Your task to perform on an android device: Set the phone to "Do not disturb". Image 0: 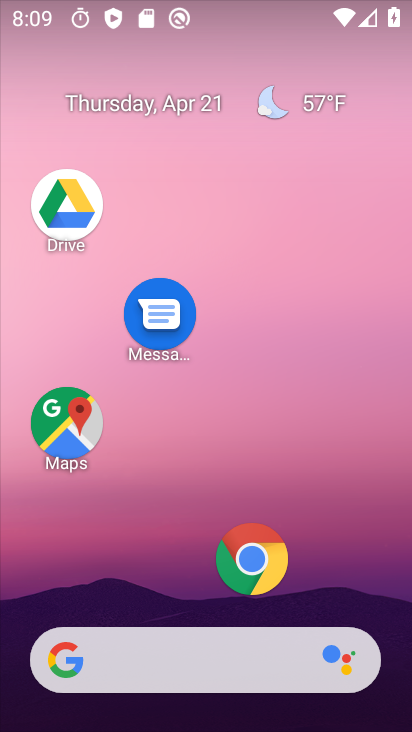
Step 0: drag from (122, 98) to (113, 24)
Your task to perform on an android device: Set the phone to "Do not disturb". Image 1: 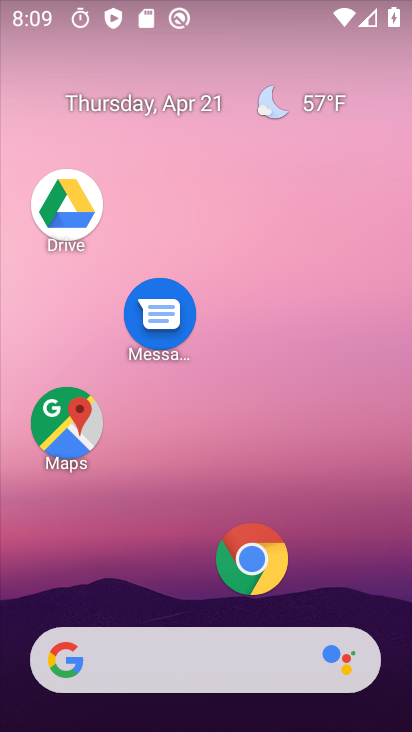
Step 1: drag from (336, 703) to (73, 0)
Your task to perform on an android device: Set the phone to "Do not disturb". Image 2: 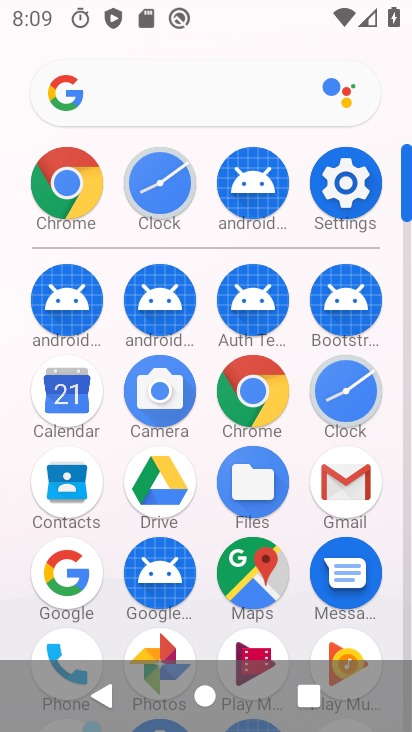
Step 2: drag from (319, 608) to (127, 41)
Your task to perform on an android device: Set the phone to "Do not disturb". Image 3: 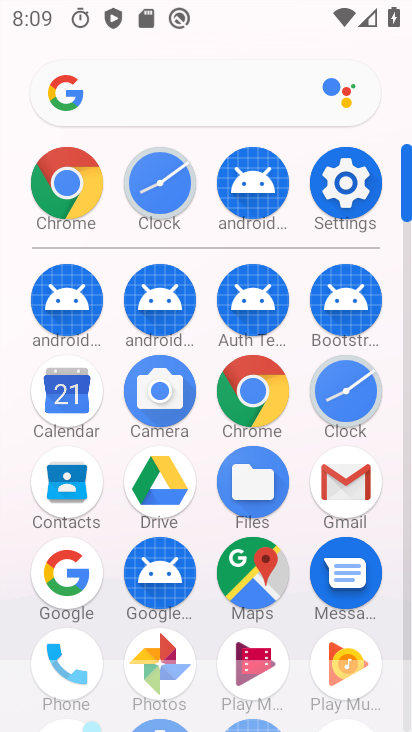
Step 3: click (349, 182)
Your task to perform on an android device: Set the phone to "Do not disturb". Image 4: 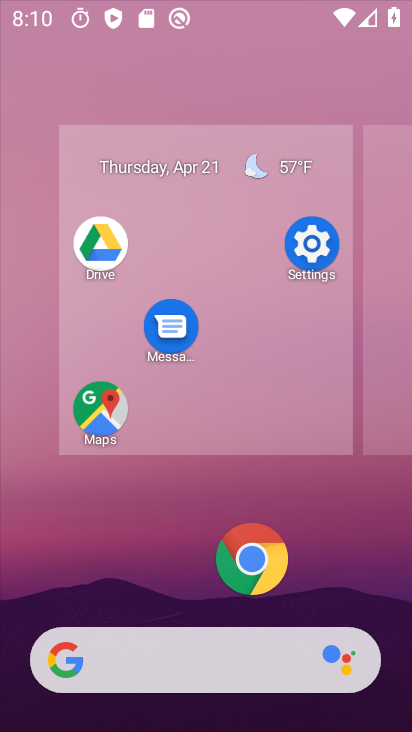
Step 4: click (356, 204)
Your task to perform on an android device: Set the phone to "Do not disturb". Image 5: 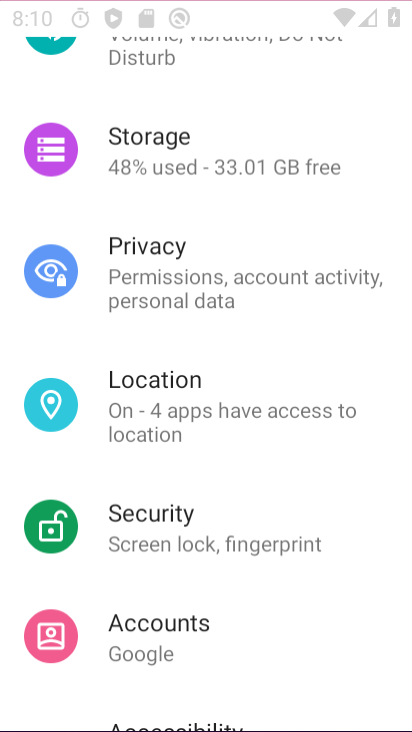
Step 5: drag from (336, 591) to (167, 34)
Your task to perform on an android device: Set the phone to "Do not disturb". Image 6: 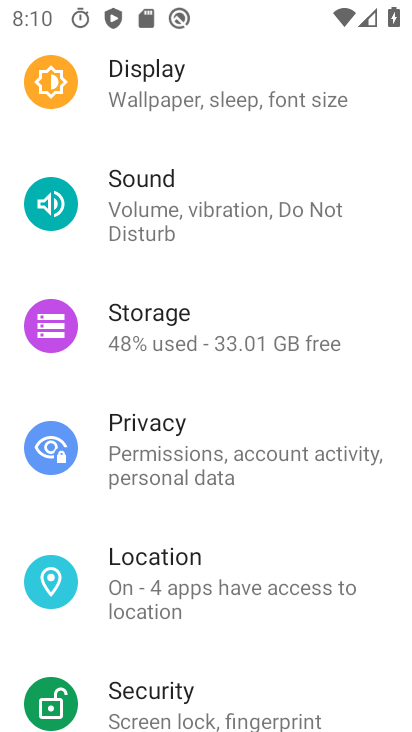
Step 6: click (165, 200)
Your task to perform on an android device: Set the phone to "Do not disturb". Image 7: 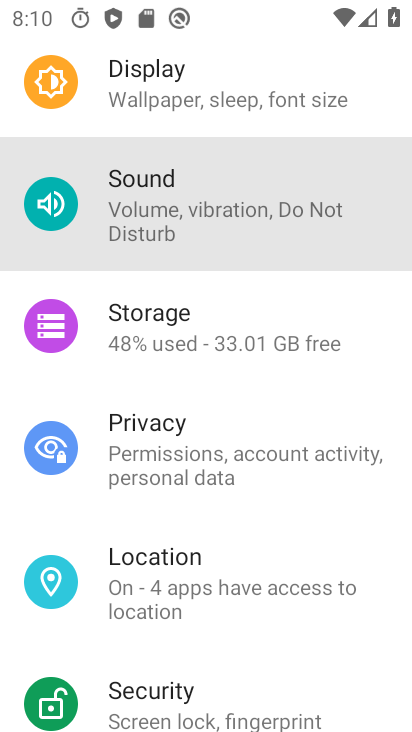
Step 7: click (177, 210)
Your task to perform on an android device: Set the phone to "Do not disturb". Image 8: 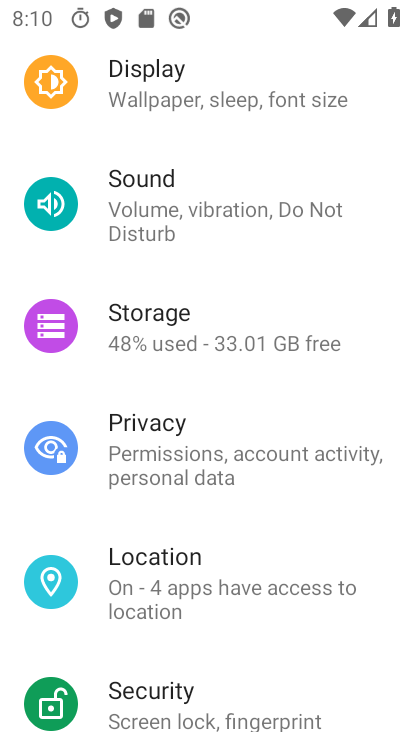
Step 8: click (177, 211)
Your task to perform on an android device: Set the phone to "Do not disturb". Image 9: 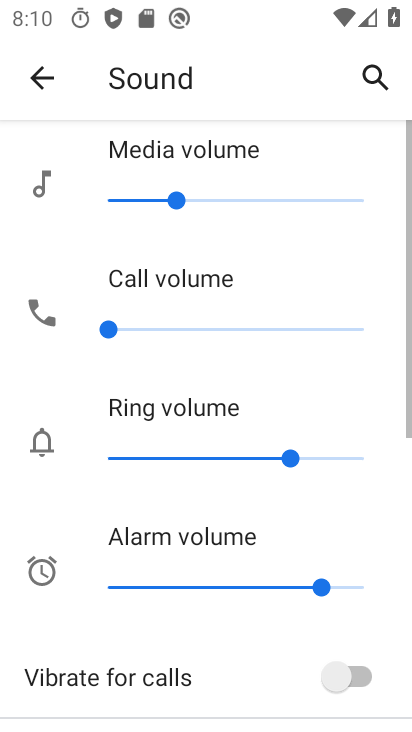
Step 9: click (177, 211)
Your task to perform on an android device: Set the phone to "Do not disturb". Image 10: 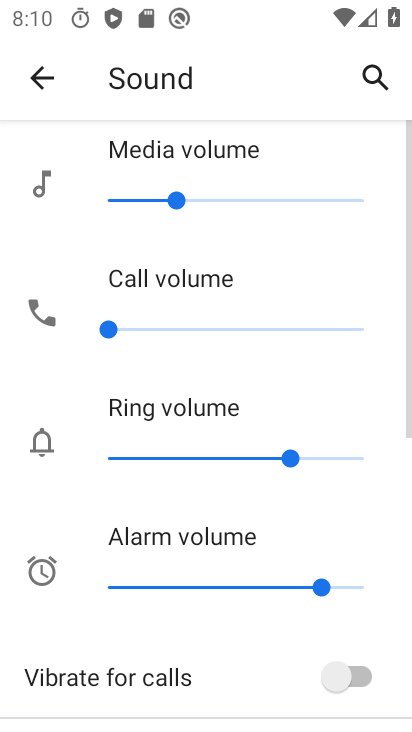
Step 10: drag from (190, 626) to (170, 209)
Your task to perform on an android device: Set the phone to "Do not disturb". Image 11: 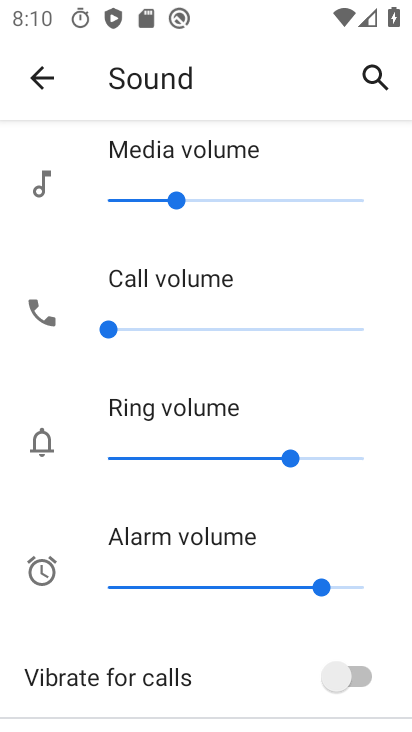
Step 11: drag from (199, 567) to (123, 186)
Your task to perform on an android device: Set the phone to "Do not disturb". Image 12: 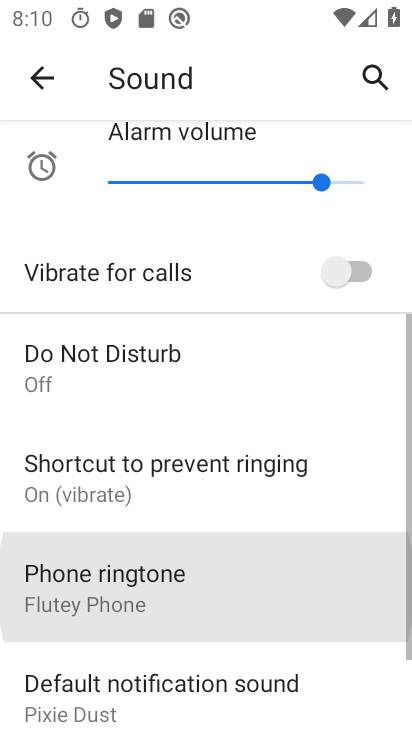
Step 12: drag from (140, 536) to (141, 271)
Your task to perform on an android device: Set the phone to "Do not disturb". Image 13: 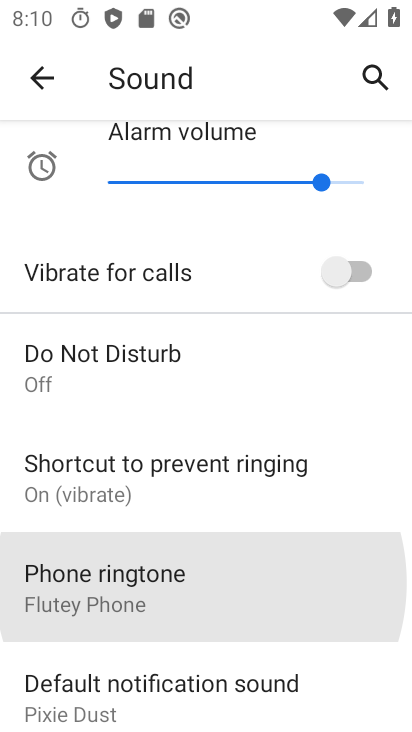
Step 13: drag from (159, 520) to (114, 58)
Your task to perform on an android device: Set the phone to "Do not disturb". Image 14: 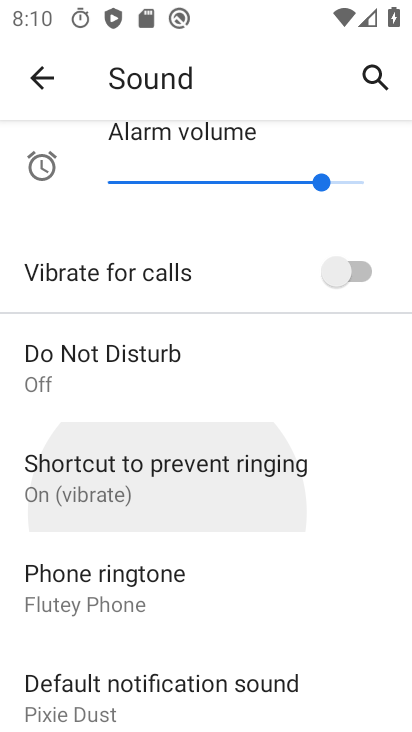
Step 14: drag from (192, 584) to (186, 117)
Your task to perform on an android device: Set the phone to "Do not disturb". Image 15: 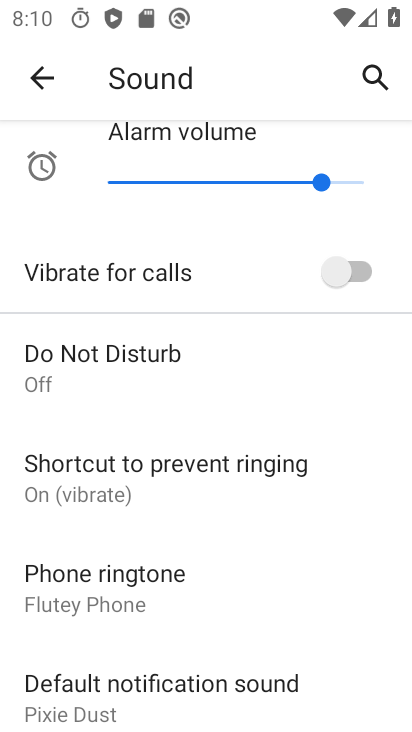
Step 15: click (98, 348)
Your task to perform on an android device: Set the phone to "Do not disturb". Image 16: 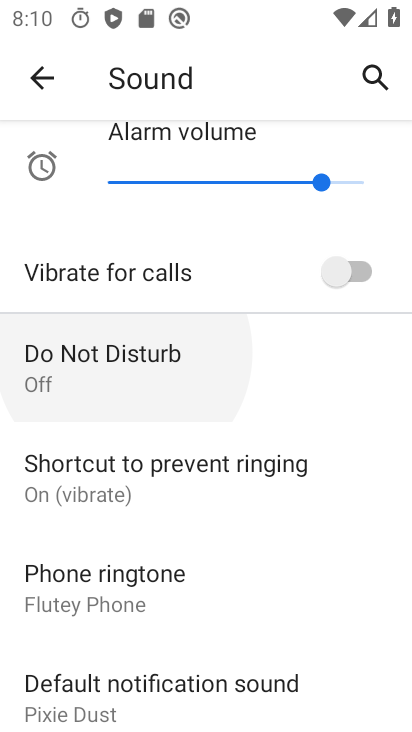
Step 16: click (98, 348)
Your task to perform on an android device: Set the phone to "Do not disturb". Image 17: 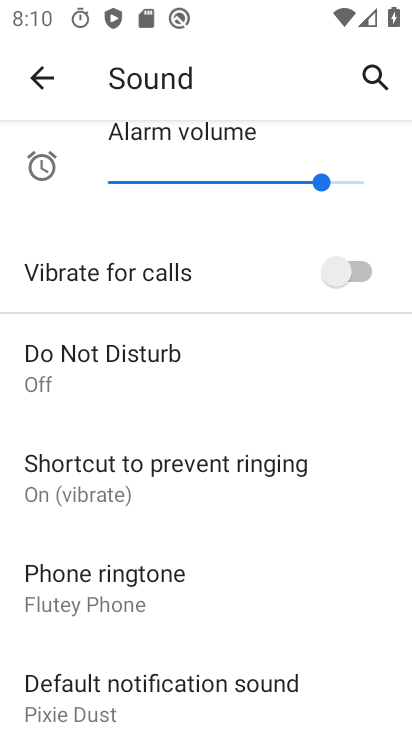
Step 17: click (98, 348)
Your task to perform on an android device: Set the phone to "Do not disturb". Image 18: 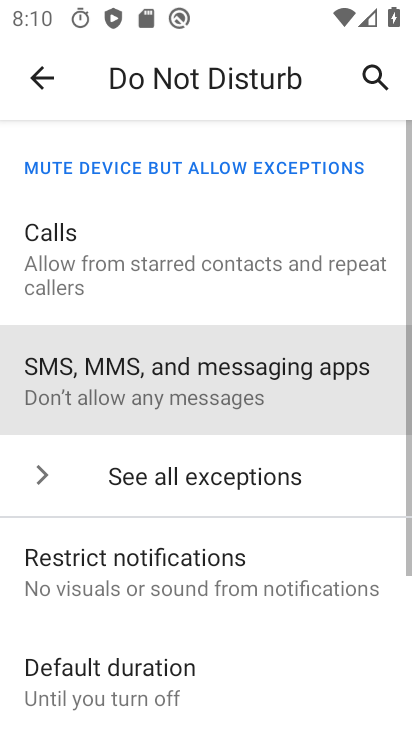
Step 18: click (98, 348)
Your task to perform on an android device: Set the phone to "Do not disturb". Image 19: 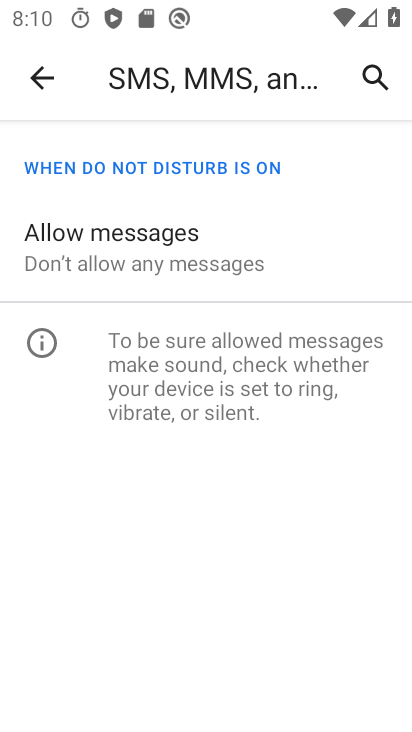
Step 19: drag from (130, 518) to (151, 95)
Your task to perform on an android device: Set the phone to "Do not disturb". Image 20: 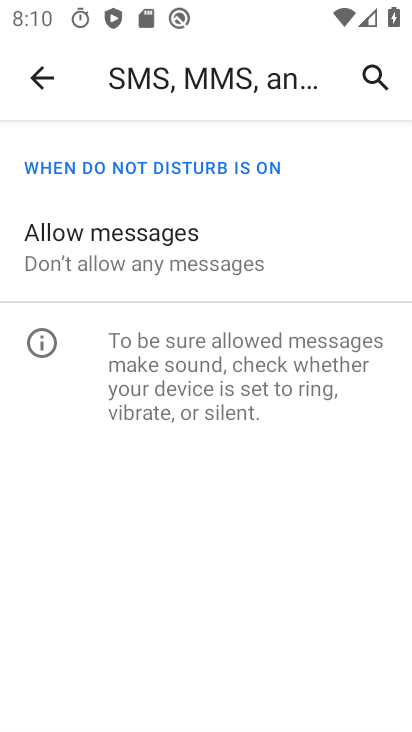
Step 20: click (30, 85)
Your task to perform on an android device: Set the phone to "Do not disturb". Image 21: 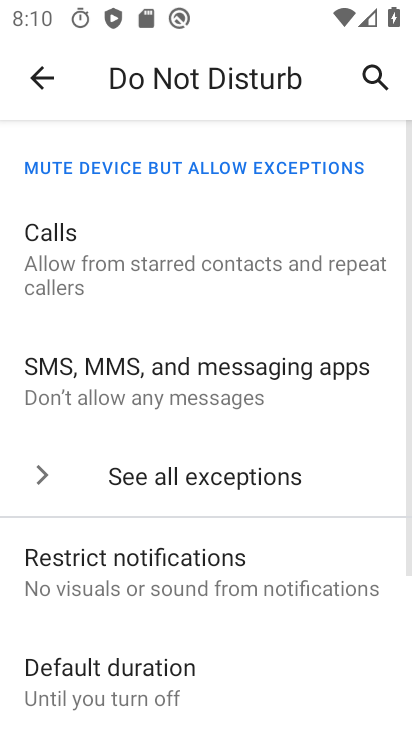
Step 21: drag from (196, 586) to (223, 142)
Your task to perform on an android device: Set the phone to "Do not disturb". Image 22: 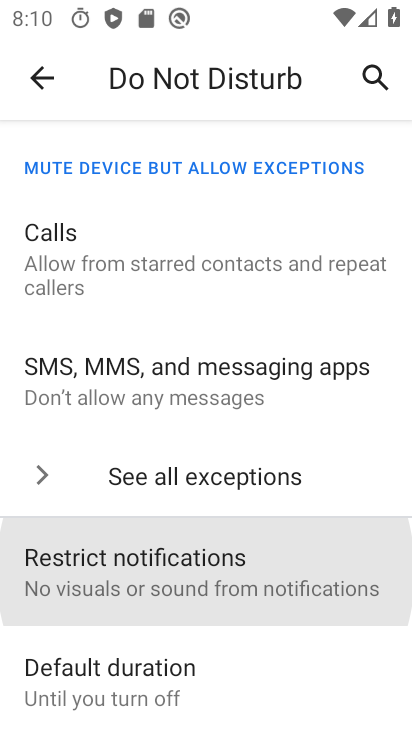
Step 22: drag from (271, 527) to (239, 173)
Your task to perform on an android device: Set the phone to "Do not disturb". Image 23: 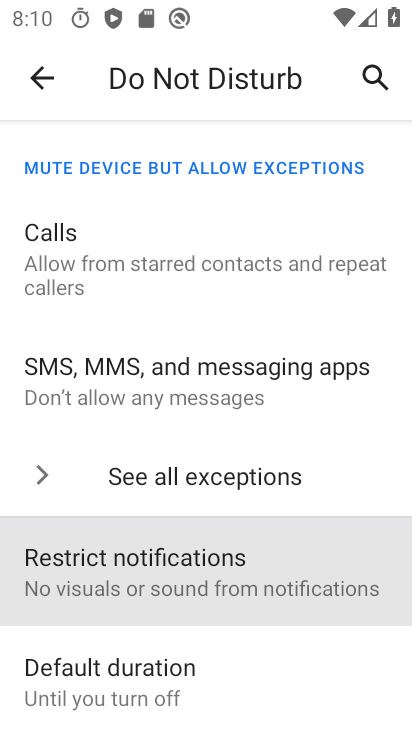
Step 23: drag from (249, 521) to (249, 66)
Your task to perform on an android device: Set the phone to "Do not disturb". Image 24: 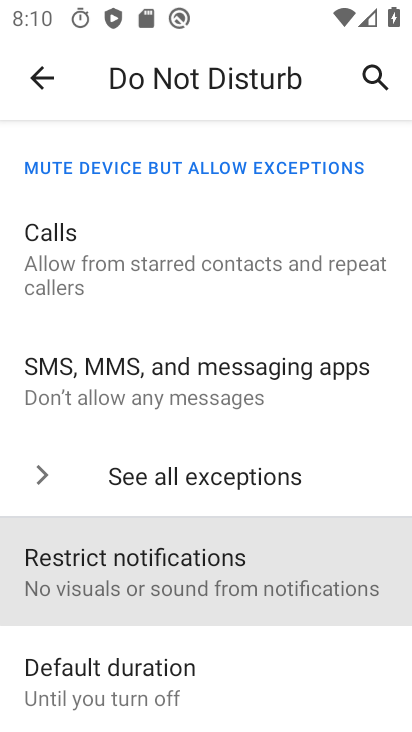
Step 24: drag from (228, 580) to (251, 120)
Your task to perform on an android device: Set the phone to "Do not disturb". Image 25: 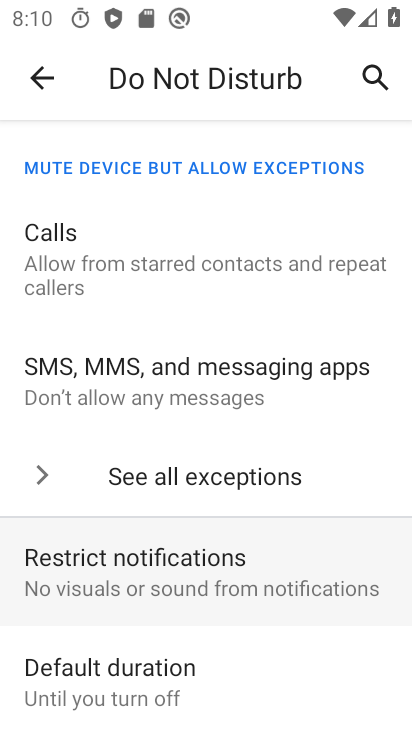
Step 25: drag from (276, 528) to (276, 162)
Your task to perform on an android device: Set the phone to "Do not disturb". Image 26: 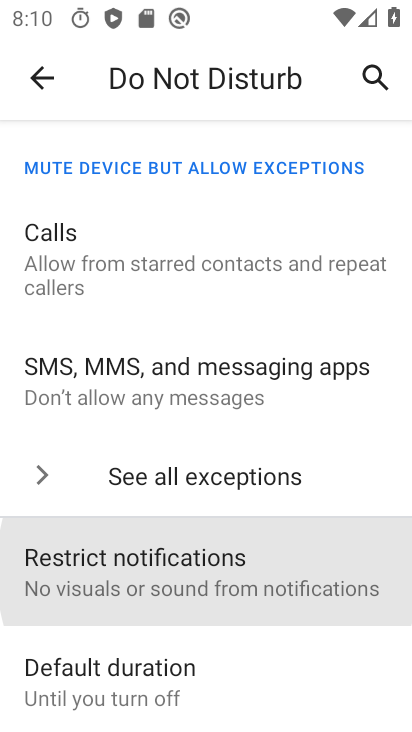
Step 26: drag from (240, 572) to (279, 209)
Your task to perform on an android device: Set the phone to "Do not disturb". Image 27: 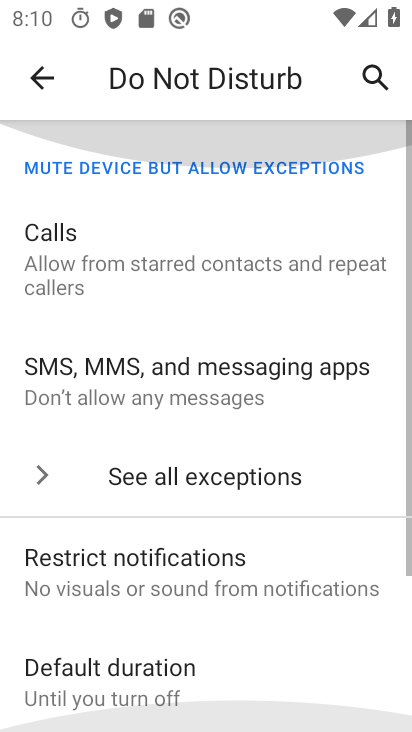
Step 27: drag from (261, 576) to (242, 86)
Your task to perform on an android device: Set the phone to "Do not disturb". Image 28: 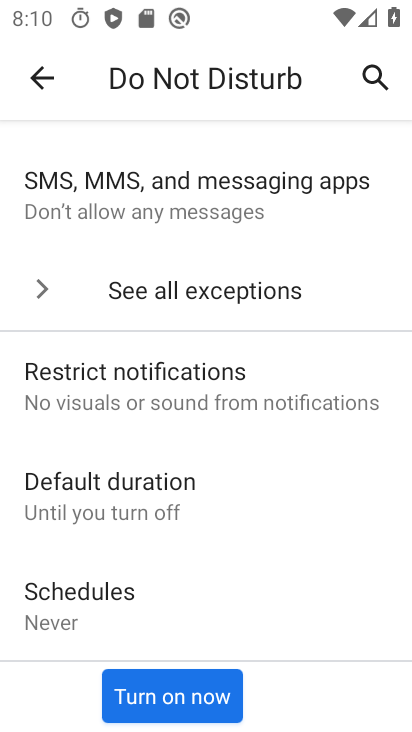
Step 28: click (178, 690)
Your task to perform on an android device: Set the phone to "Do not disturb". Image 29: 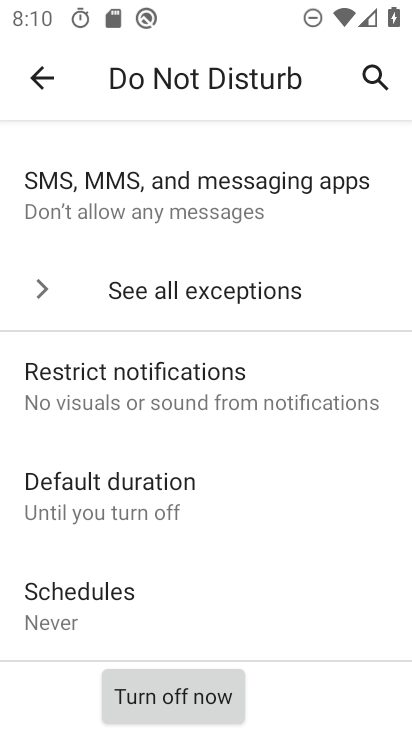
Step 29: press home button
Your task to perform on an android device: Set the phone to "Do not disturb". Image 30: 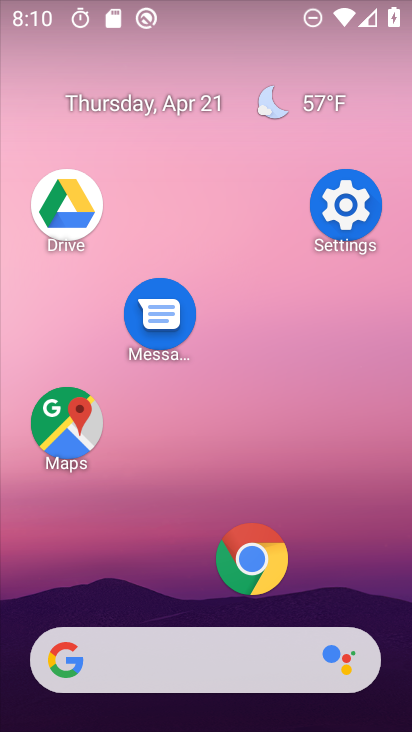
Step 30: drag from (367, 682) to (232, 2)
Your task to perform on an android device: Set the phone to "Do not disturb". Image 31: 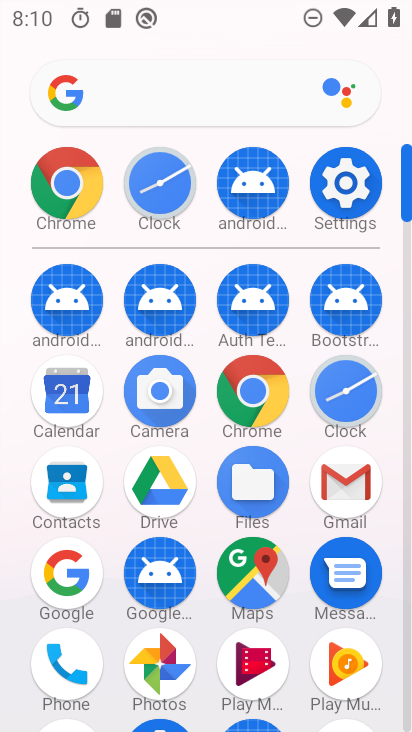
Step 31: drag from (200, 577) to (127, 16)
Your task to perform on an android device: Set the phone to "Do not disturb". Image 32: 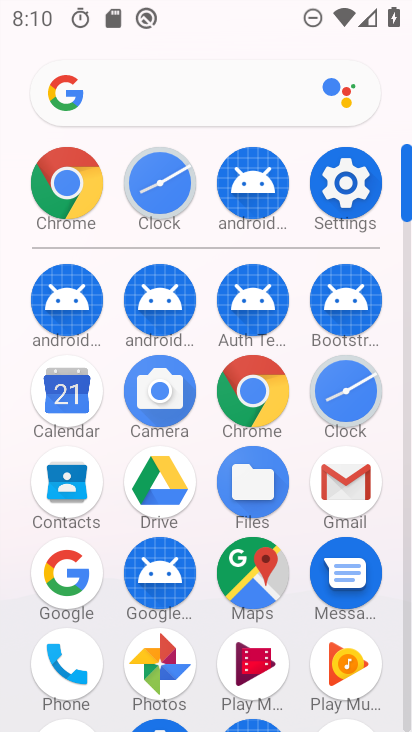
Step 32: click (350, 182)
Your task to perform on an android device: Set the phone to "Do not disturb". Image 33: 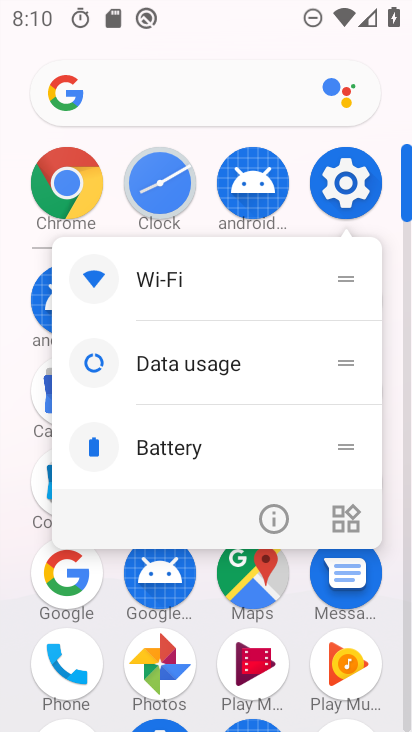
Step 33: click (350, 178)
Your task to perform on an android device: Set the phone to "Do not disturb". Image 34: 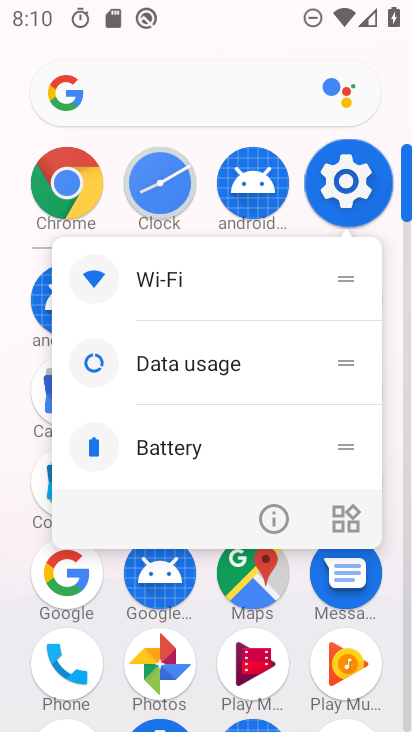
Step 34: click (354, 178)
Your task to perform on an android device: Set the phone to "Do not disturb". Image 35: 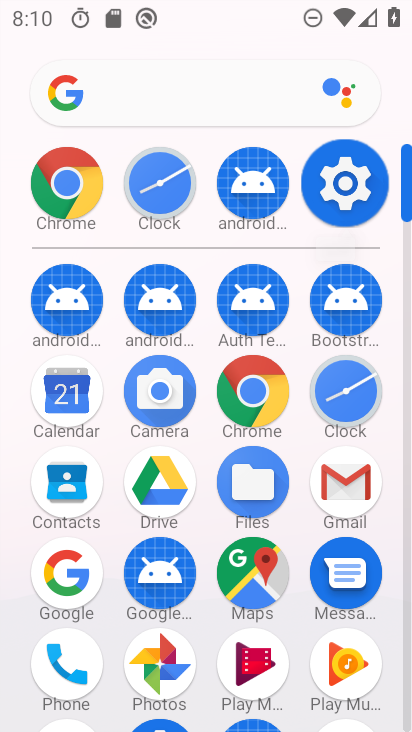
Step 35: click (357, 180)
Your task to perform on an android device: Set the phone to "Do not disturb". Image 36: 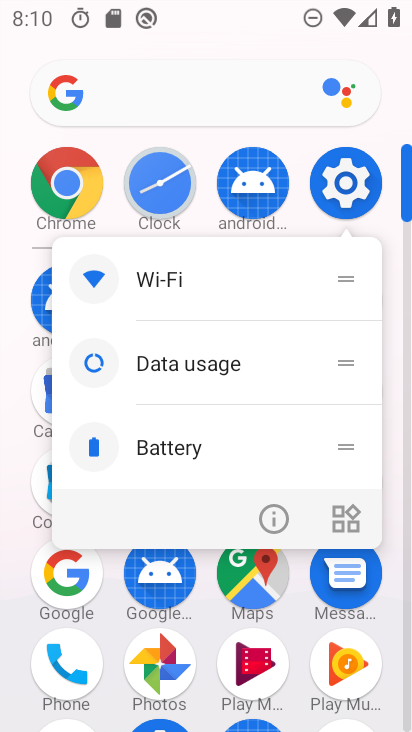
Step 36: click (357, 180)
Your task to perform on an android device: Set the phone to "Do not disturb". Image 37: 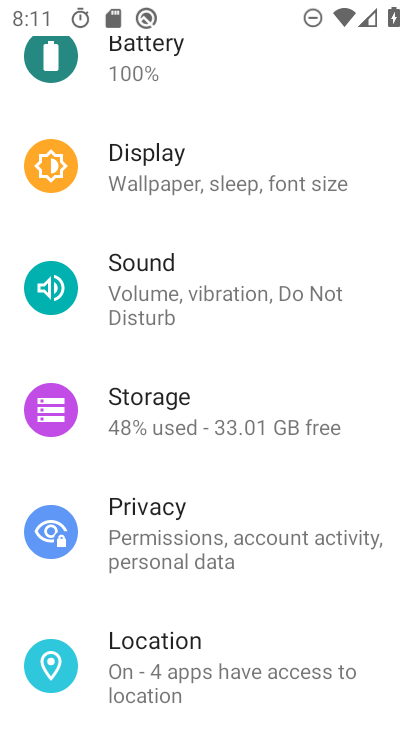
Step 37: click (181, 290)
Your task to perform on an android device: Set the phone to "Do not disturb". Image 38: 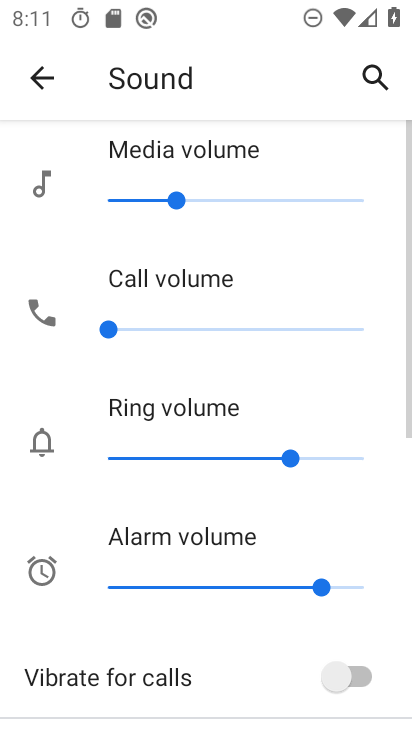
Step 38: drag from (202, 576) to (186, 132)
Your task to perform on an android device: Set the phone to "Do not disturb". Image 39: 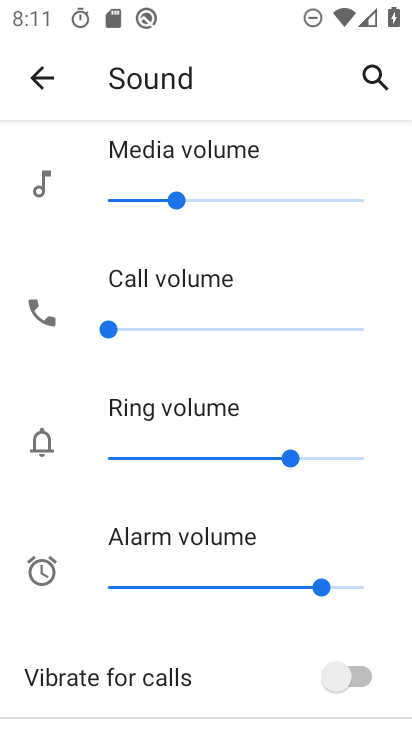
Step 39: drag from (179, 431) to (125, 32)
Your task to perform on an android device: Set the phone to "Do not disturb". Image 40: 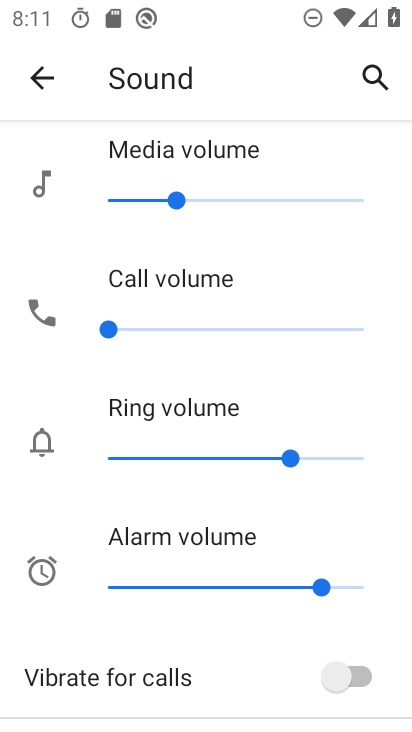
Step 40: drag from (172, 416) to (144, 11)
Your task to perform on an android device: Set the phone to "Do not disturb". Image 41: 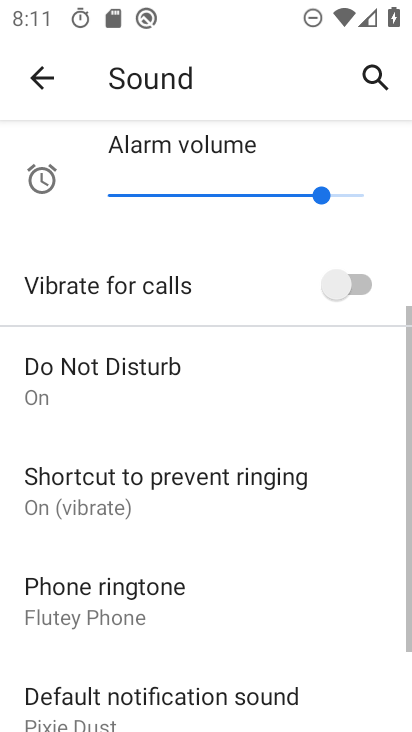
Step 41: drag from (198, 542) to (171, 47)
Your task to perform on an android device: Set the phone to "Do not disturb". Image 42: 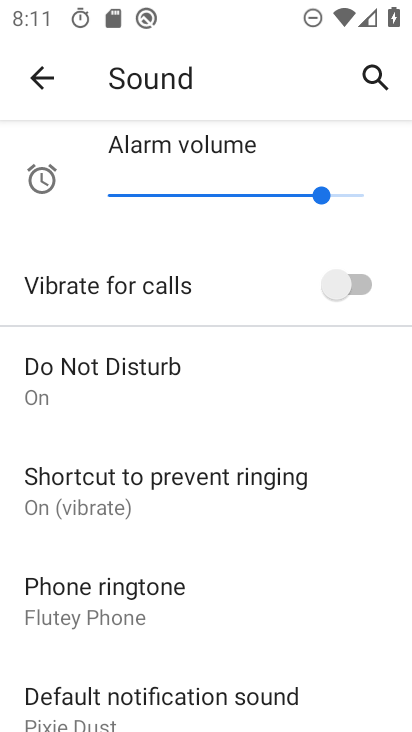
Step 42: click (35, 77)
Your task to perform on an android device: Set the phone to "Do not disturb". Image 43: 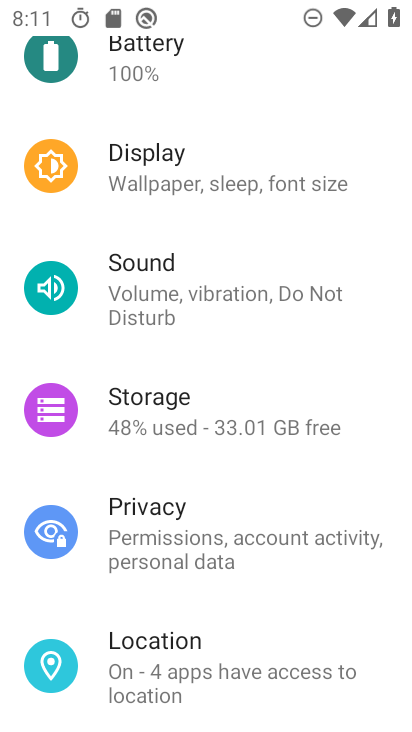
Step 43: click (156, 303)
Your task to perform on an android device: Set the phone to "Do not disturb". Image 44: 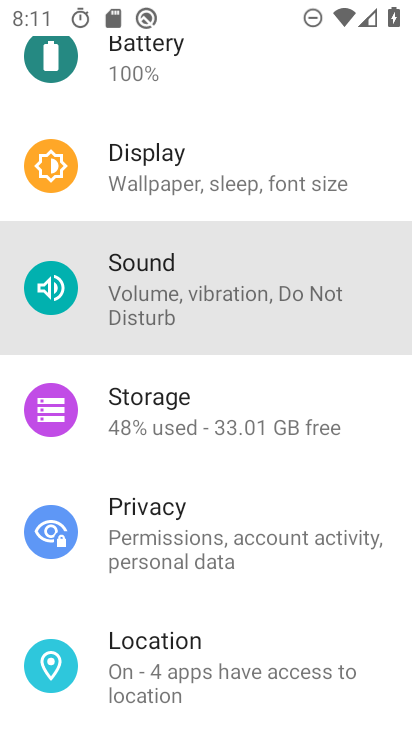
Step 44: click (156, 303)
Your task to perform on an android device: Set the phone to "Do not disturb". Image 45: 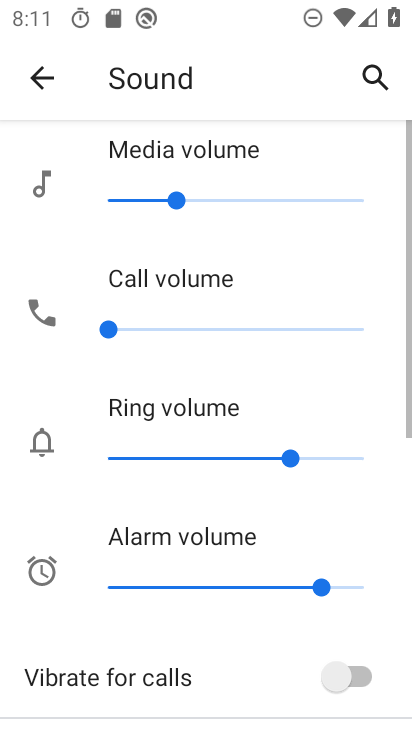
Step 45: drag from (175, 514) to (196, 72)
Your task to perform on an android device: Set the phone to "Do not disturb". Image 46: 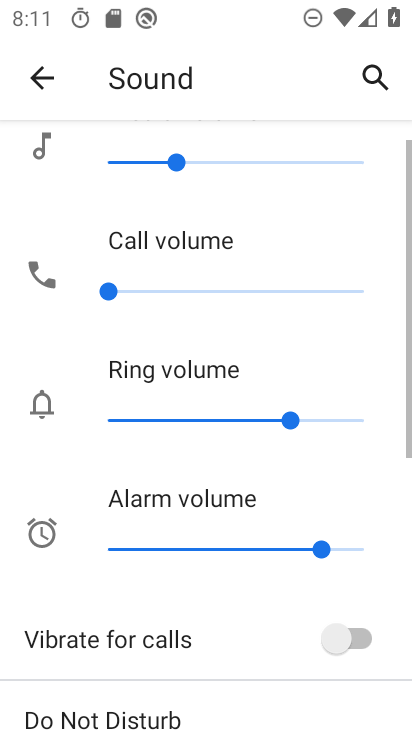
Step 46: drag from (191, 445) to (168, 57)
Your task to perform on an android device: Set the phone to "Do not disturb". Image 47: 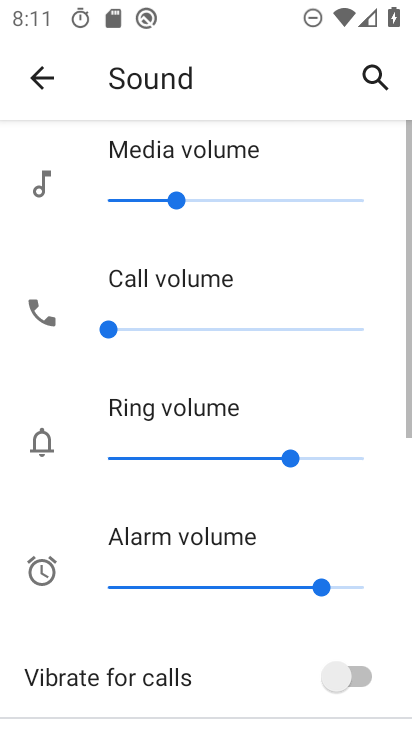
Step 47: drag from (165, 538) to (178, 100)
Your task to perform on an android device: Set the phone to "Do not disturb". Image 48: 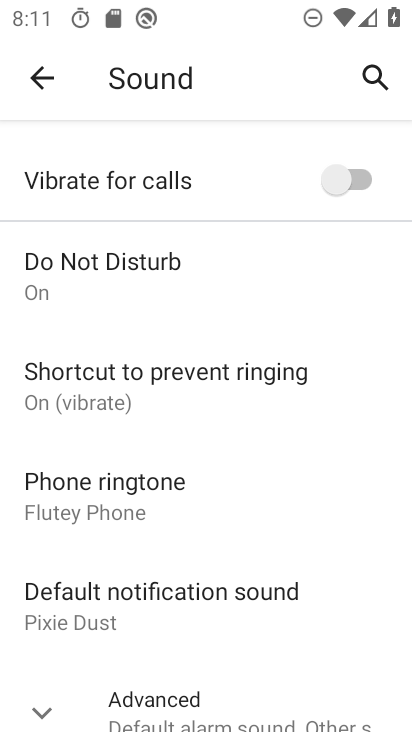
Step 48: click (110, 261)
Your task to perform on an android device: Set the phone to "Do not disturb". Image 49: 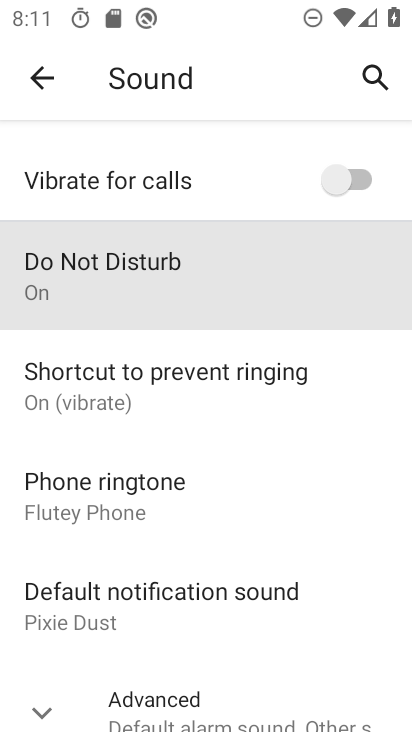
Step 49: click (111, 260)
Your task to perform on an android device: Set the phone to "Do not disturb". Image 50: 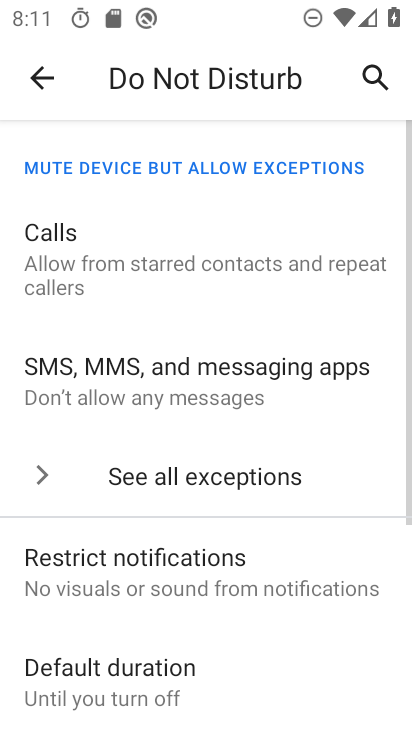
Step 50: drag from (228, 629) to (228, 198)
Your task to perform on an android device: Set the phone to "Do not disturb". Image 51: 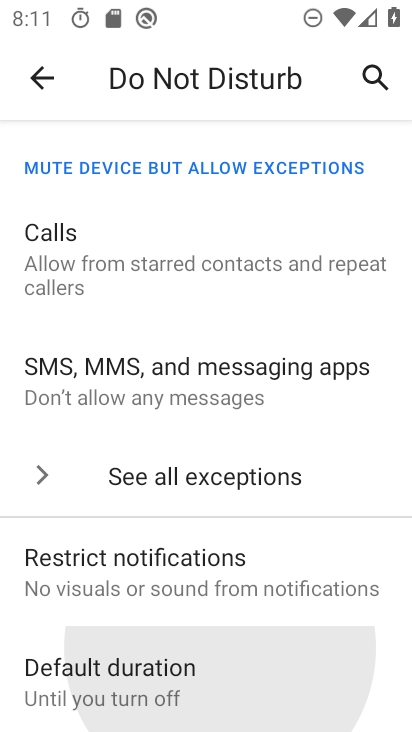
Step 51: drag from (160, 613) to (73, 237)
Your task to perform on an android device: Set the phone to "Do not disturb". Image 52: 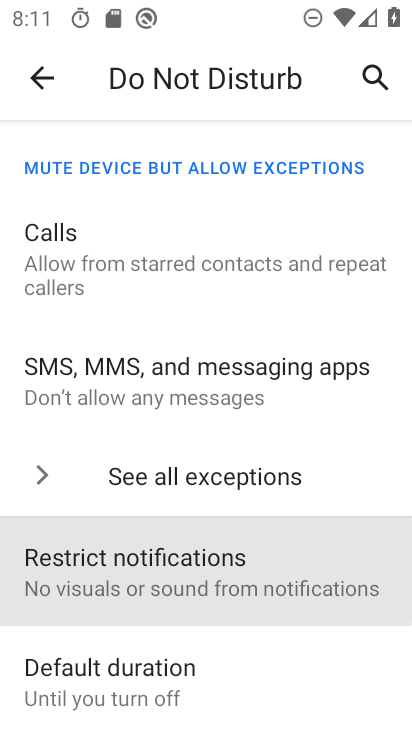
Step 52: drag from (164, 534) to (215, 237)
Your task to perform on an android device: Set the phone to "Do not disturb". Image 53: 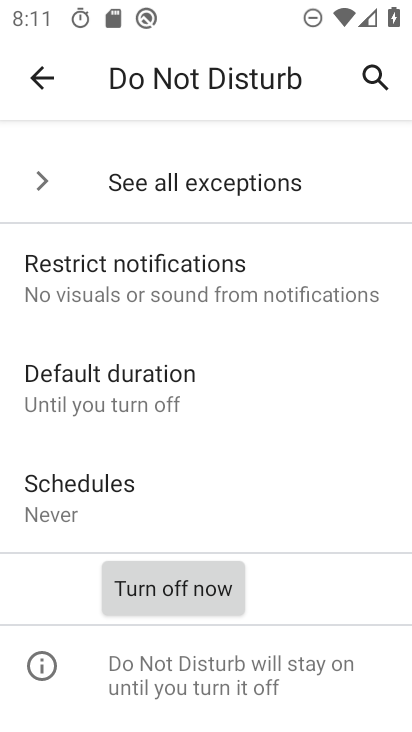
Step 53: drag from (240, 622) to (258, 189)
Your task to perform on an android device: Set the phone to "Do not disturb". Image 54: 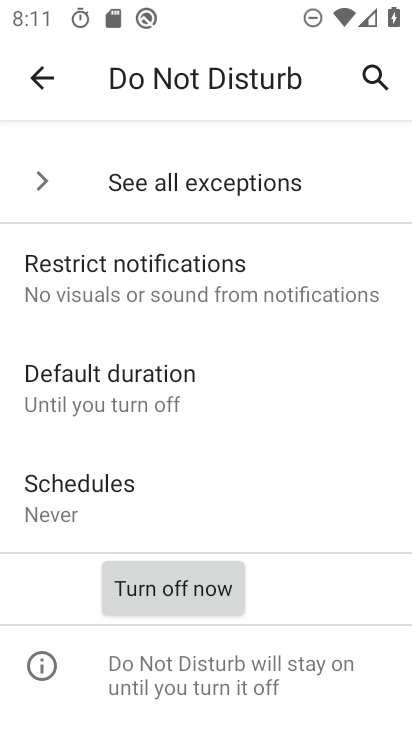
Step 54: drag from (208, 561) to (160, 133)
Your task to perform on an android device: Set the phone to "Do not disturb". Image 55: 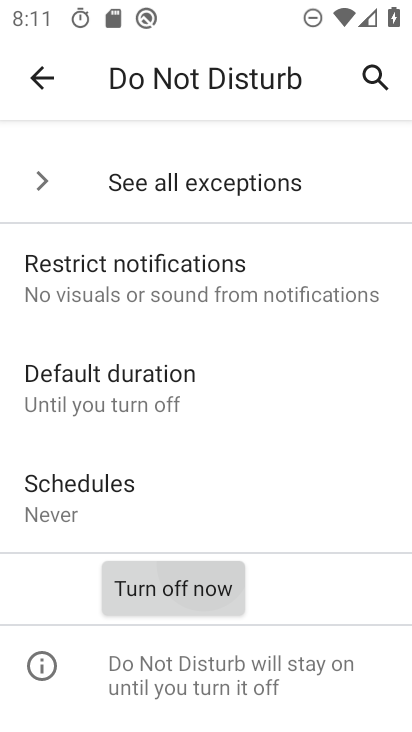
Step 55: drag from (220, 456) to (145, 89)
Your task to perform on an android device: Set the phone to "Do not disturb". Image 56: 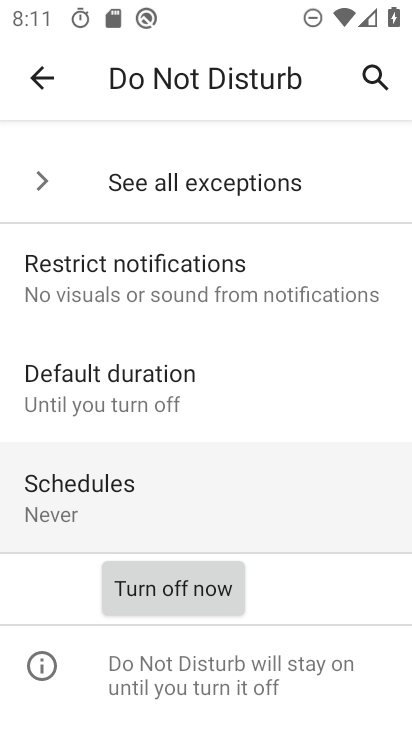
Step 56: drag from (236, 520) to (210, 83)
Your task to perform on an android device: Set the phone to "Do not disturb". Image 57: 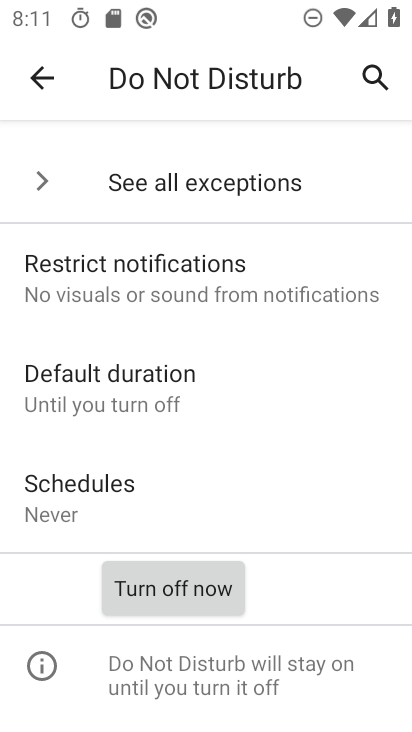
Step 57: click (185, 575)
Your task to perform on an android device: Set the phone to "Do not disturb". Image 58: 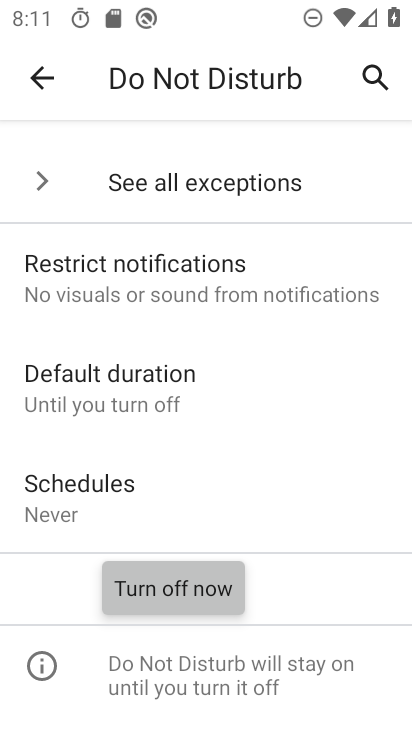
Step 58: click (186, 579)
Your task to perform on an android device: Set the phone to "Do not disturb". Image 59: 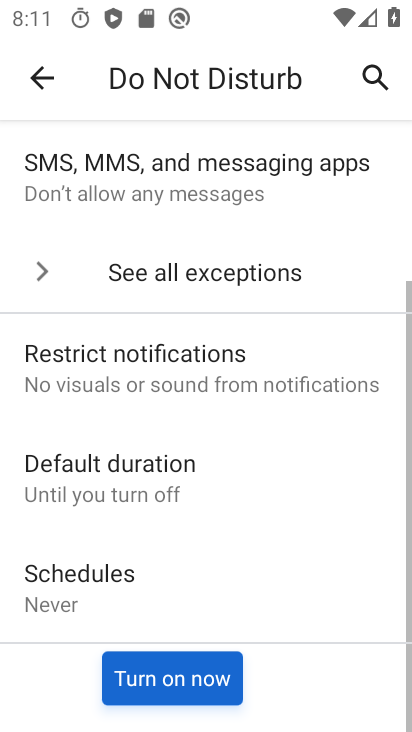
Step 59: click (188, 581)
Your task to perform on an android device: Set the phone to "Do not disturb". Image 60: 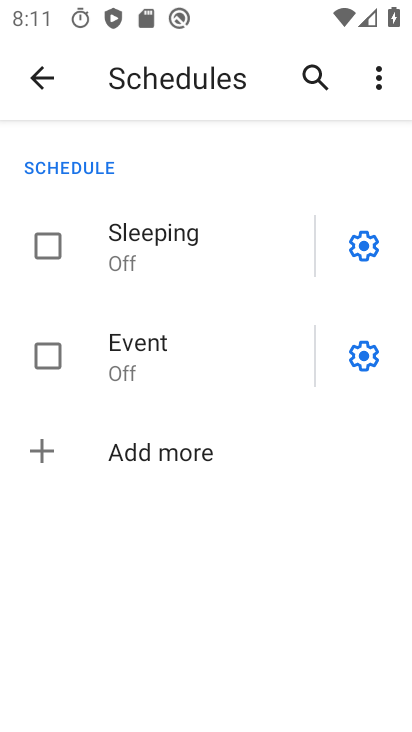
Step 60: task complete